Your task to perform on an android device: turn off translation in the chrome app Image 0: 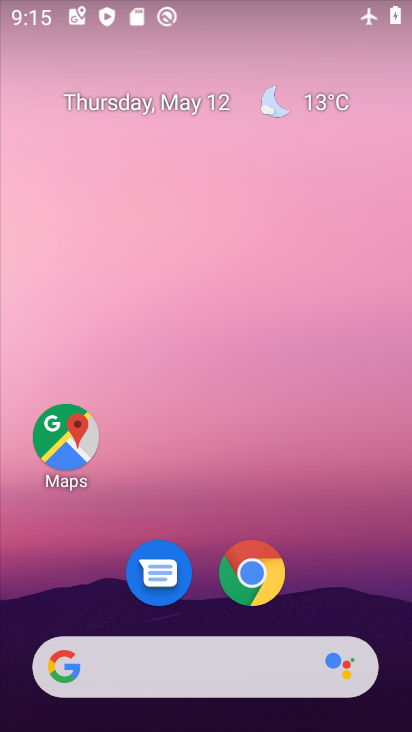
Step 0: click (256, 572)
Your task to perform on an android device: turn off translation in the chrome app Image 1: 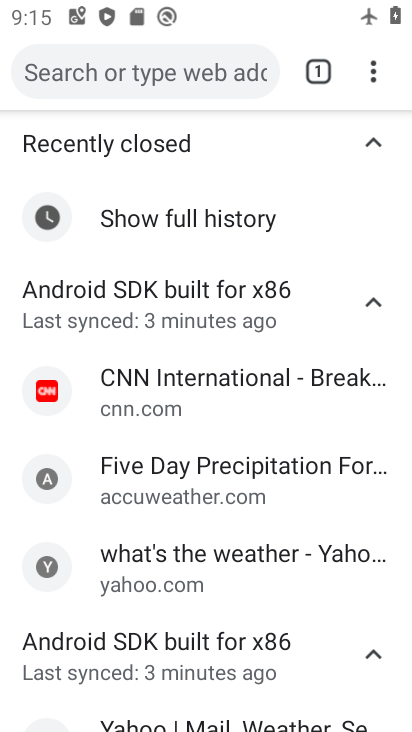
Step 1: click (376, 74)
Your task to perform on an android device: turn off translation in the chrome app Image 2: 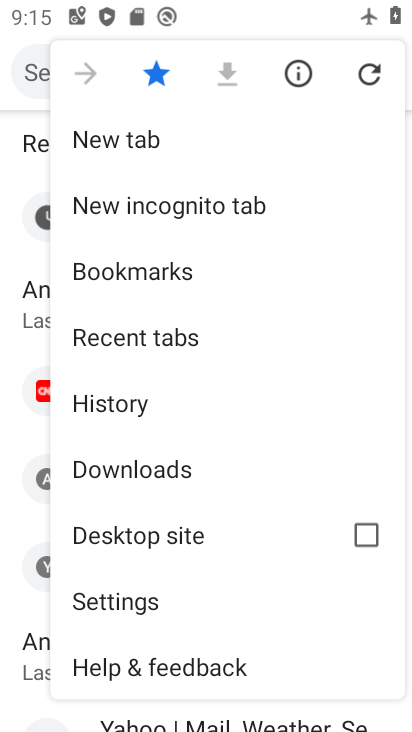
Step 2: click (118, 592)
Your task to perform on an android device: turn off translation in the chrome app Image 3: 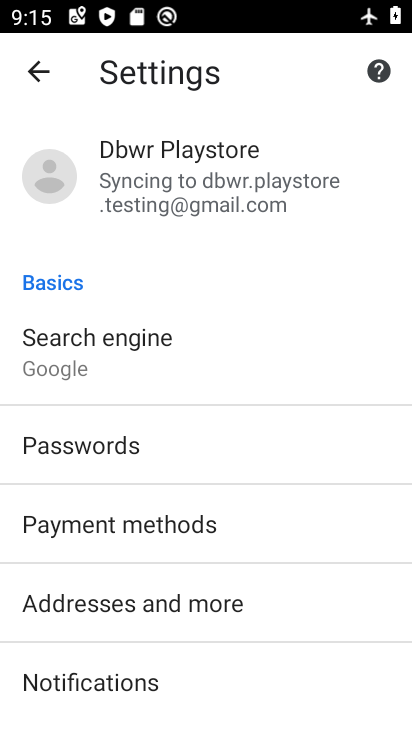
Step 3: drag from (316, 657) to (353, 347)
Your task to perform on an android device: turn off translation in the chrome app Image 4: 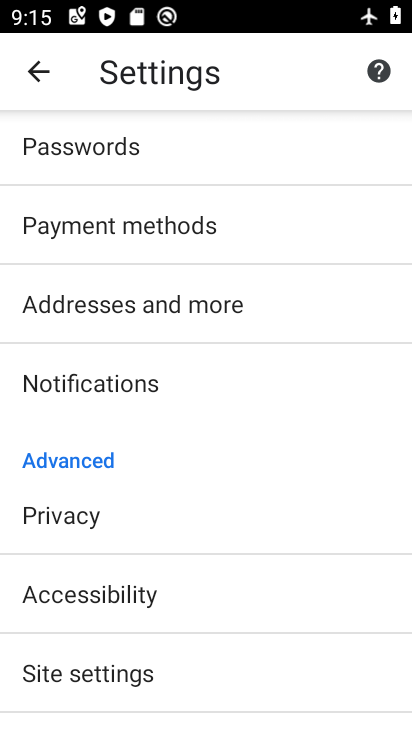
Step 4: drag from (271, 691) to (290, 366)
Your task to perform on an android device: turn off translation in the chrome app Image 5: 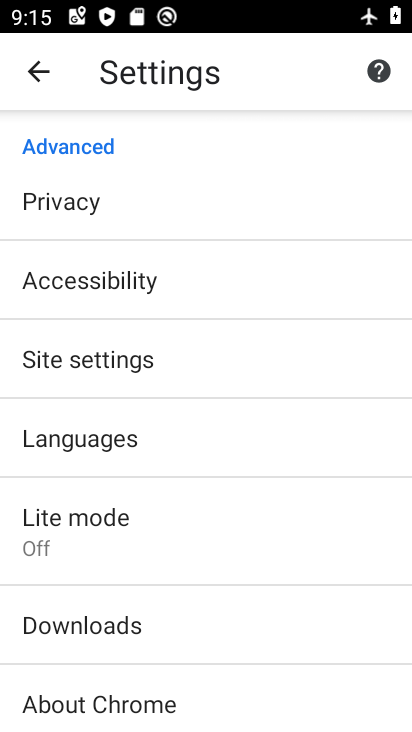
Step 5: click (137, 722)
Your task to perform on an android device: turn off translation in the chrome app Image 6: 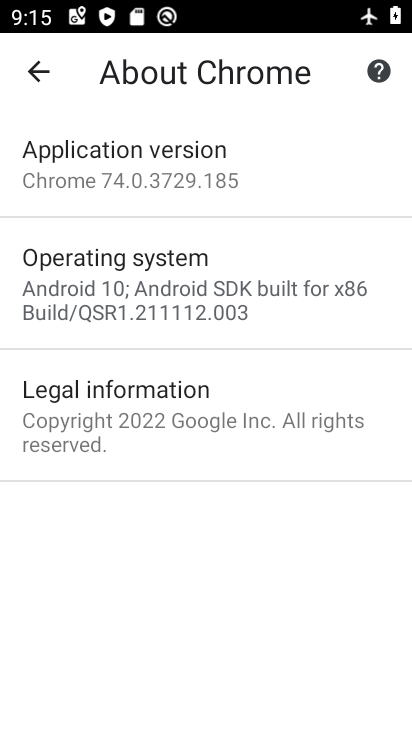
Step 6: click (44, 68)
Your task to perform on an android device: turn off translation in the chrome app Image 7: 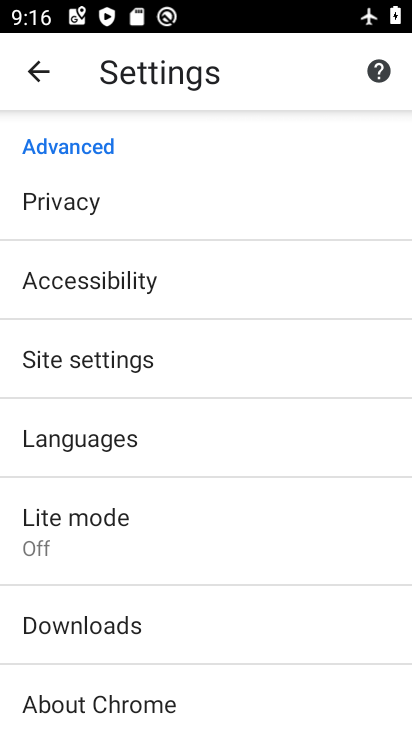
Step 7: click (121, 430)
Your task to perform on an android device: turn off translation in the chrome app Image 8: 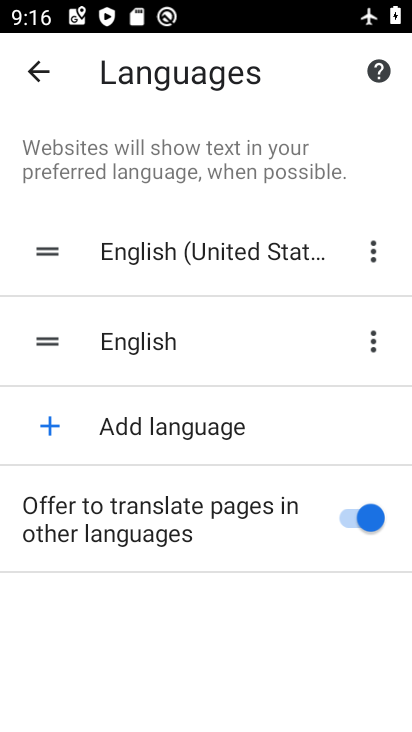
Step 8: click (343, 514)
Your task to perform on an android device: turn off translation in the chrome app Image 9: 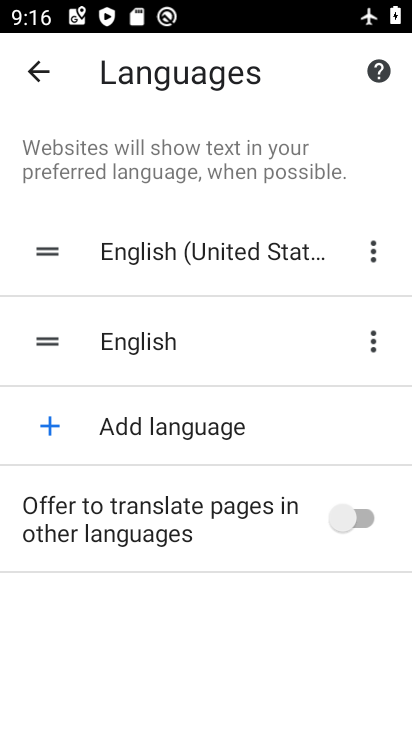
Step 9: task complete